Your task to perform on an android device: change the clock display to analog Image 0: 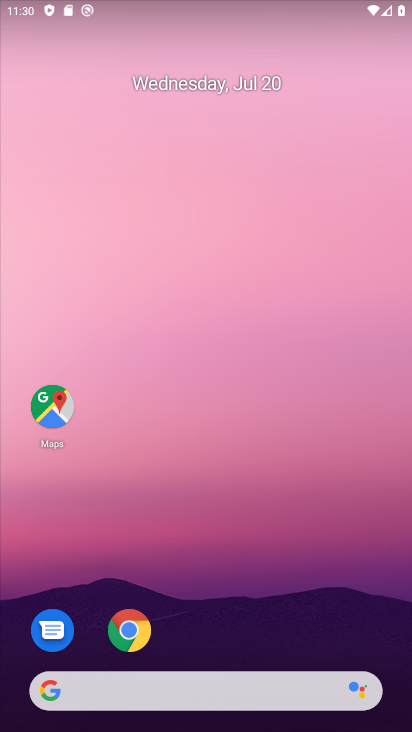
Step 0: click (162, 178)
Your task to perform on an android device: change the clock display to analog Image 1: 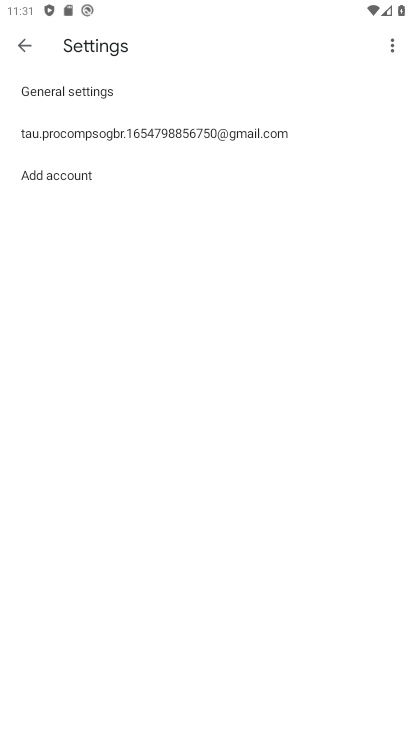
Step 1: drag from (162, 429) to (186, 150)
Your task to perform on an android device: change the clock display to analog Image 2: 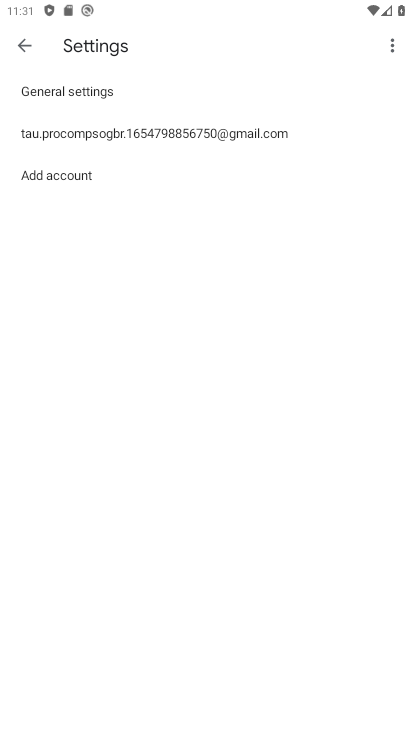
Step 2: press home button
Your task to perform on an android device: change the clock display to analog Image 3: 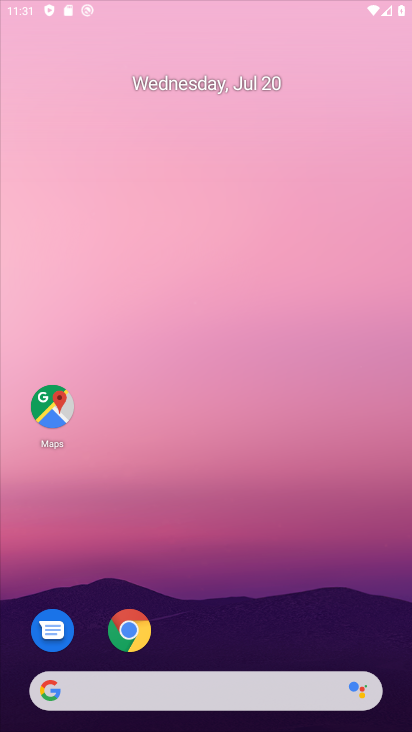
Step 3: drag from (182, 656) to (306, 60)
Your task to perform on an android device: change the clock display to analog Image 4: 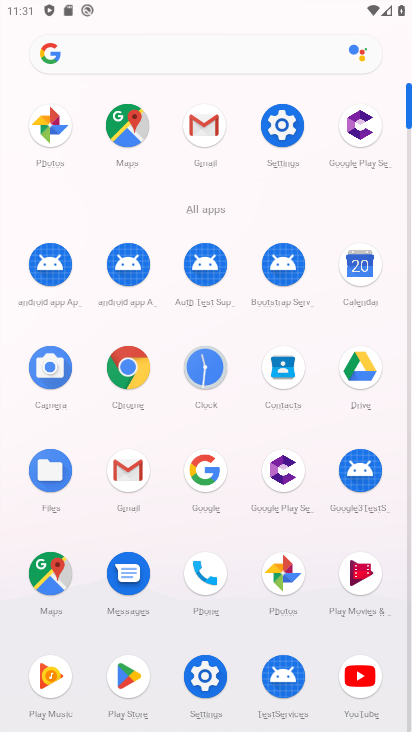
Step 4: click (194, 364)
Your task to perform on an android device: change the clock display to analog Image 5: 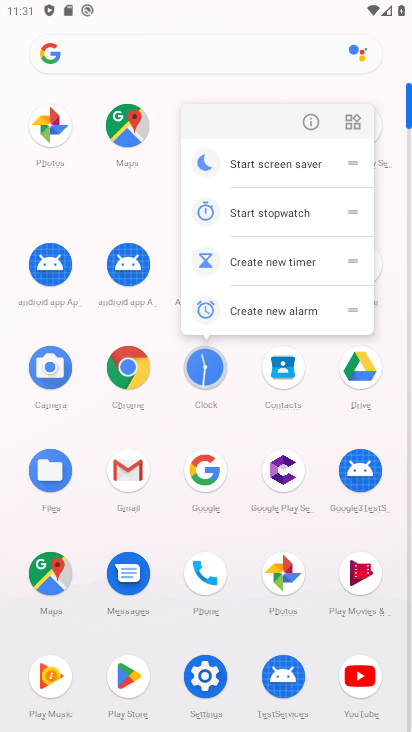
Step 5: click (305, 119)
Your task to perform on an android device: change the clock display to analog Image 6: 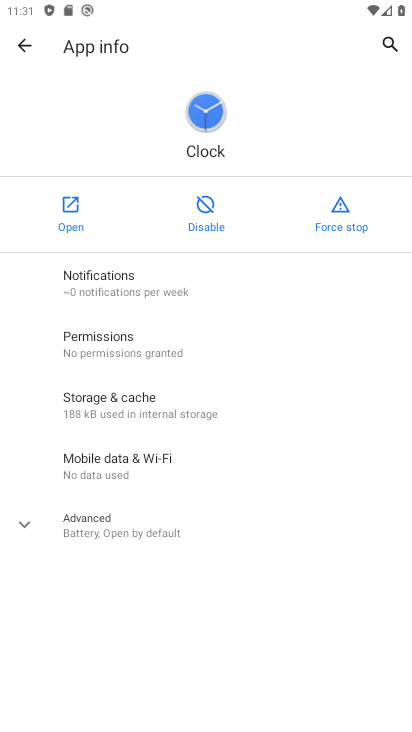
Step 6: click (75, 198)
Your task to perform on an android device: change the clock display to analog Image 7: 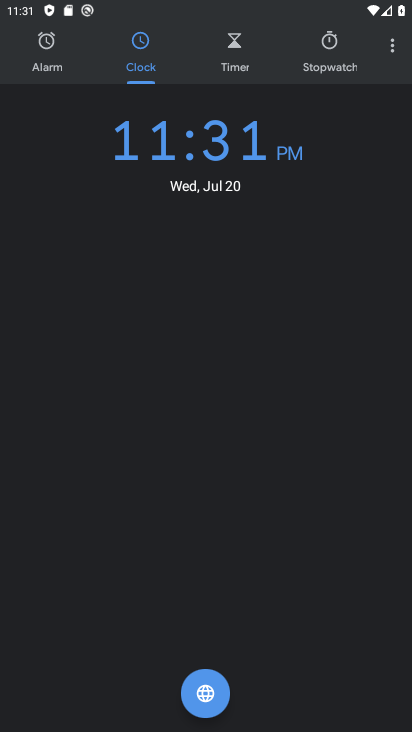
Step 7: drag from (391, 35) to (318, 86)
Your task to perform on an android device: change the clock display to analog Image 8: 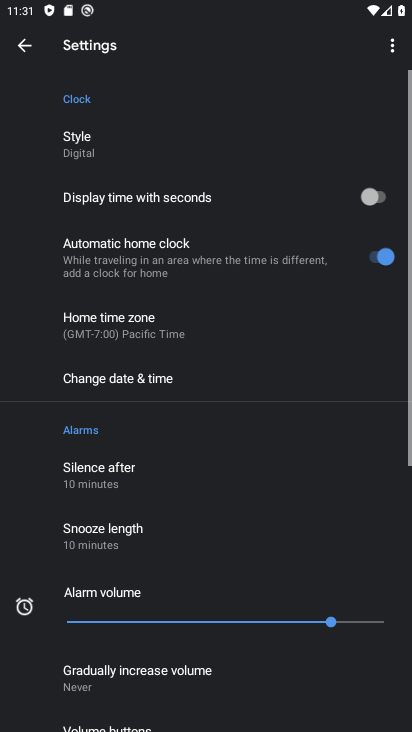
Step 8: click (79, 147)
Your task to perform on an android device: change the clock display to analog Image 9: 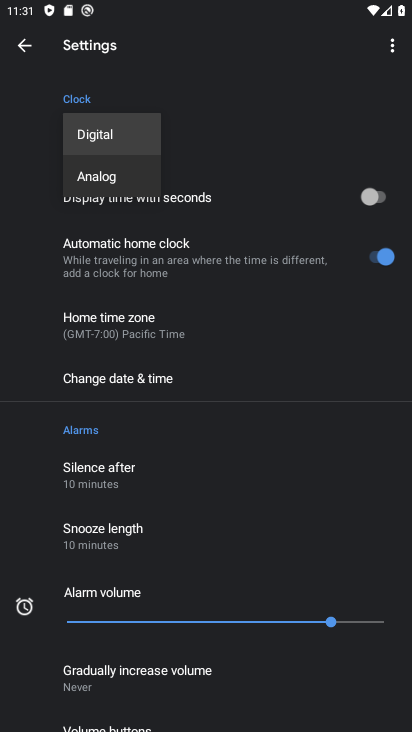
Step 9: click (113, 182)
Your task to perform on an android device: change the clock display to analog Image 10: 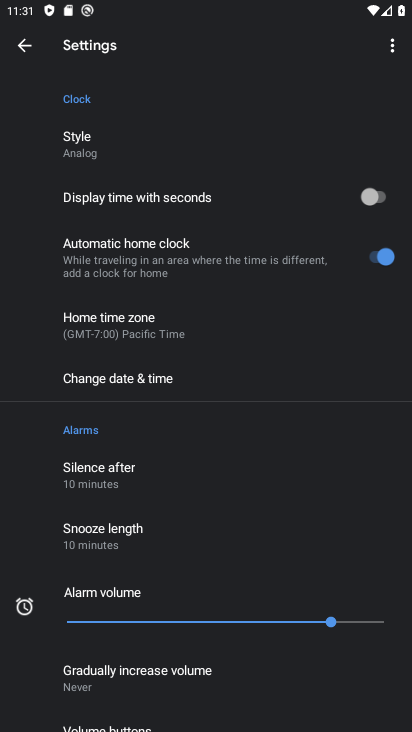
Step 10: task complete